Your task to perform on an android device: open app "Facebook Messenger" (install if not already installed) and go to login screen Image 0: 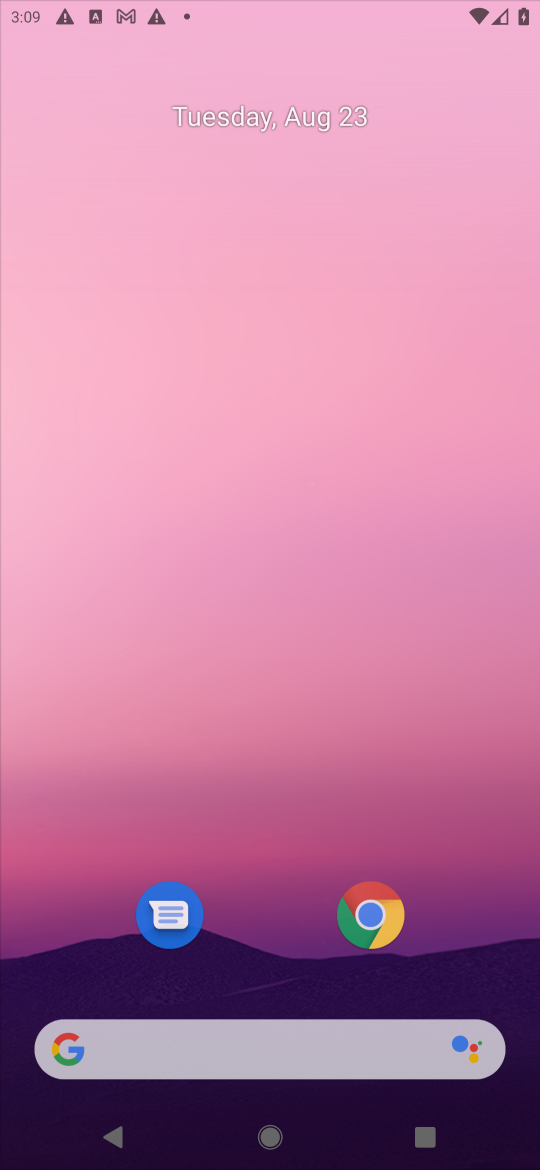
Step 0: press home button
Your task to perform on an android device: open app "Facebook Messenger" (install if not already installed) and go to login screen Image 1: 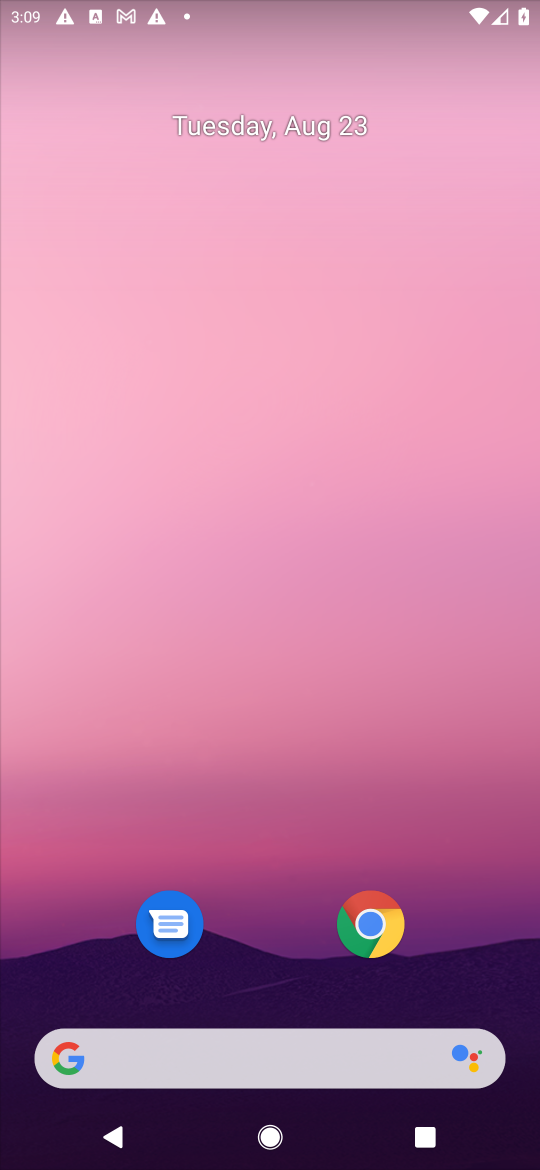
Step 1: press home button
Your task to perform on an android device: open app "Facebook Messenger" (install if not already installed) and go to login screen Image 2: 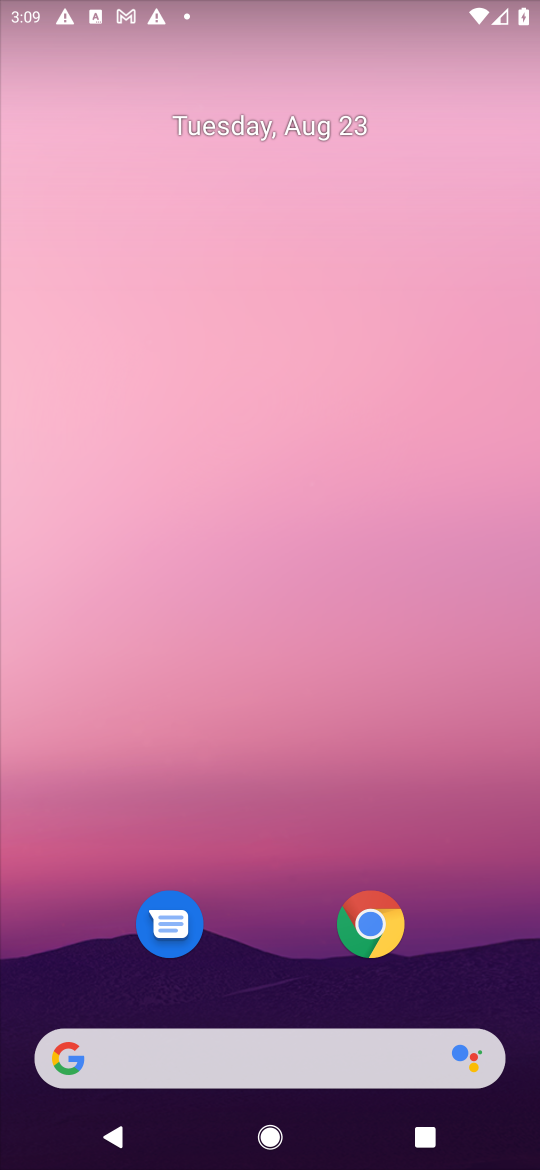
Step 2: drag from (465, 814) to (429, 145)
Your task to perform on an android device: open app "Facebook Messenger" (install if not already installed) and go to login screen Image 3: 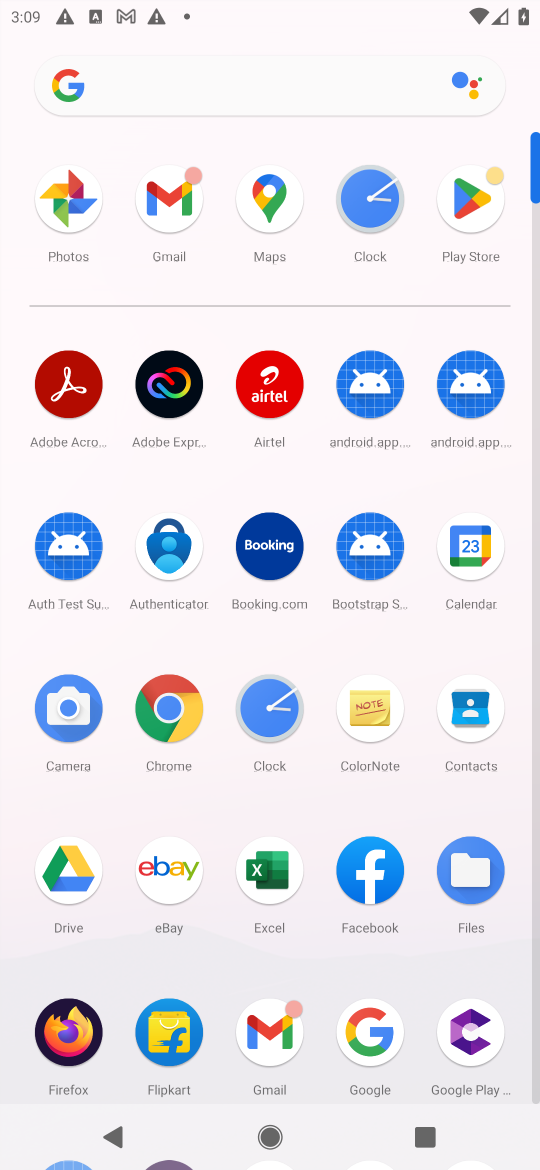
Step 3: click (475, 202)
Your task to perform on an android device: open app "Facebook Messenger" (install if not already installed) and go to login screen Image 4: 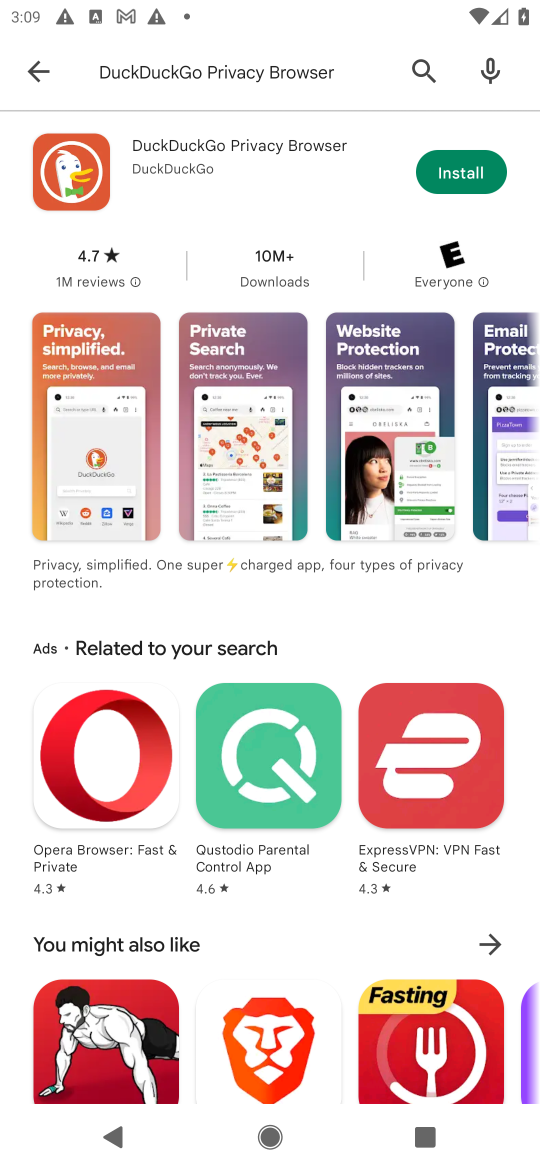
Step 4: press back button
Your task to perform on an android device: open app "Facebook Messenger" (install if not already installed) and go to login screen Image 5: 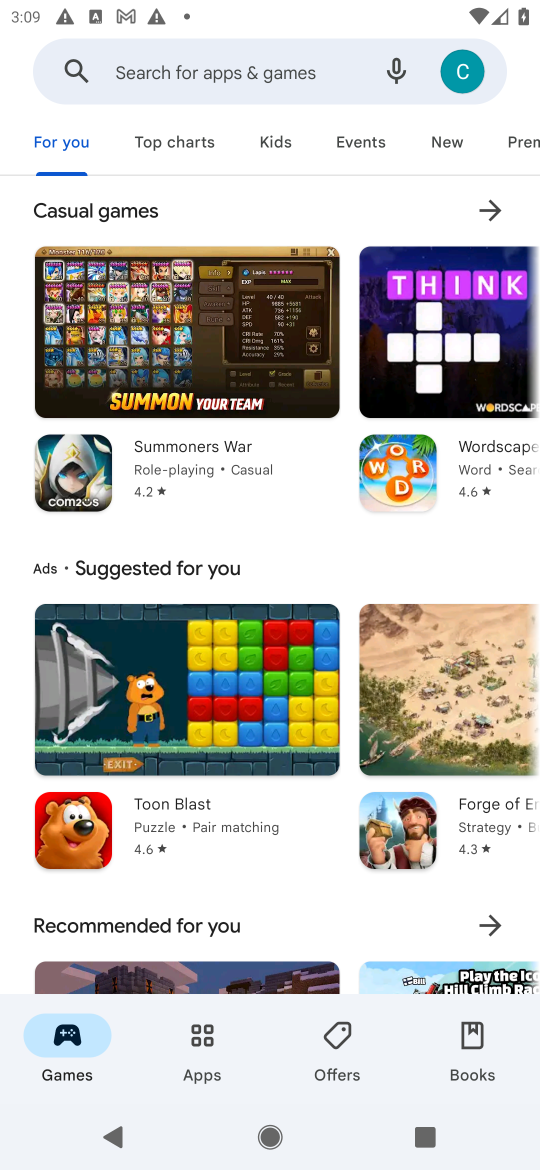
Step 5: click (193, 81)
Your task to perform on an android device: open app "Facebook Messenger" (install if not already installed) and go to login screen Image 6: 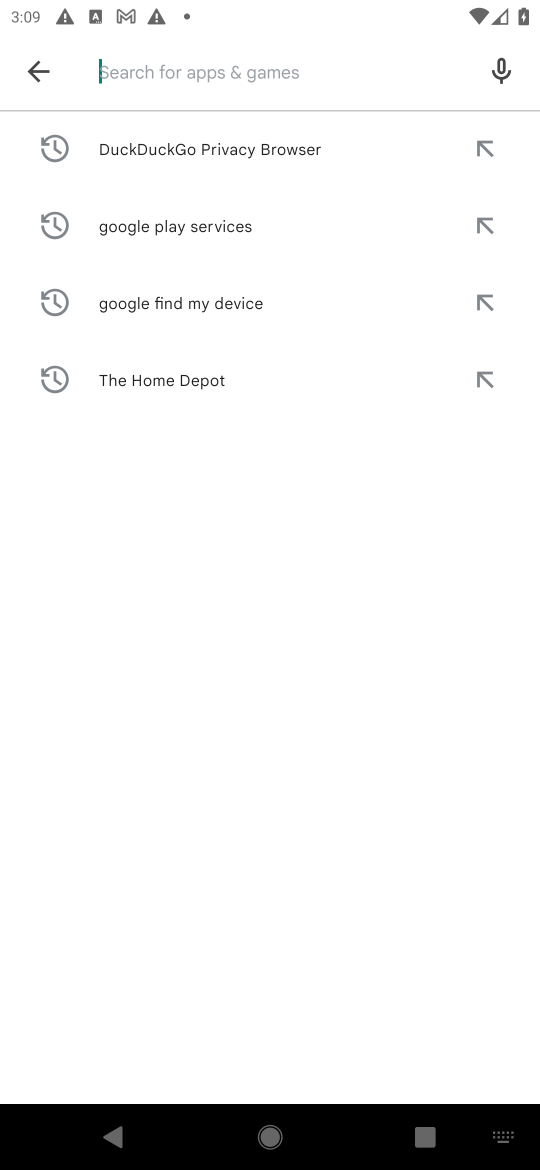
Step 6: type "Facebook Messenger"
Your task to perform on an android device: open app "Facebook Messenger" (install if not already installed) and go to login screen Image 7: 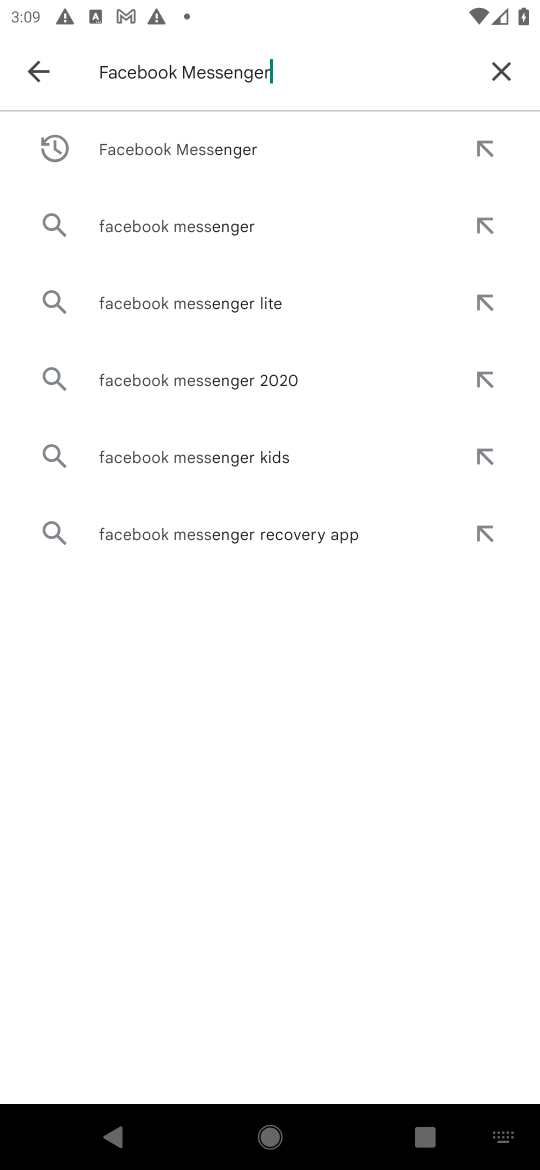
Step 7: press enter
Your task to perform on an android device: open app "Facebook Messenger" (install if not already installed) and go to login screen Image 8: 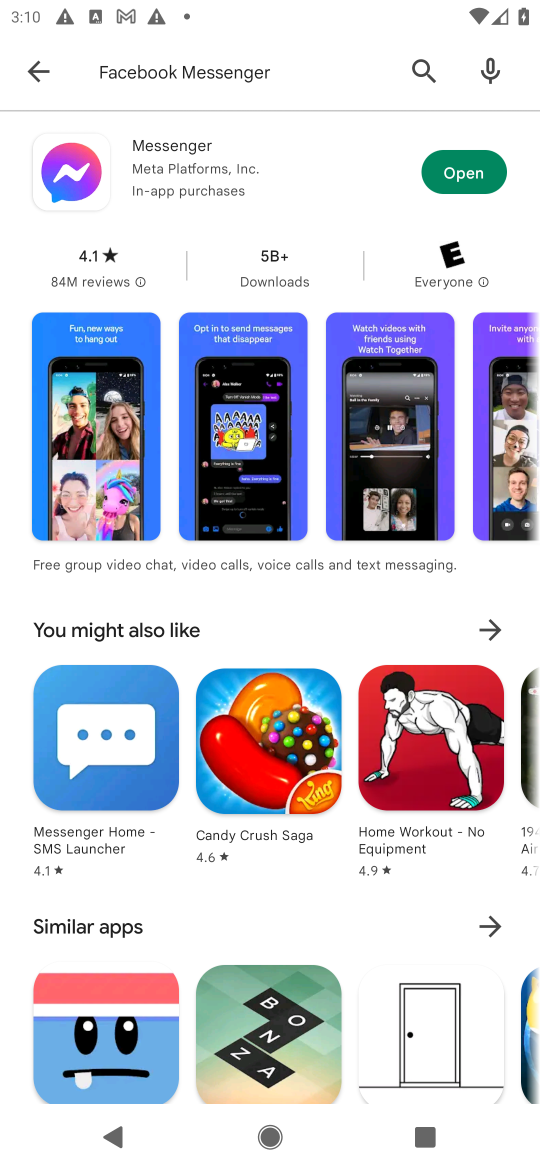
Step 8: click (470, 169)
Your task to perform on an android device: open app "Facebook Messenger" (install if not already installed) and go to login screen Image 9: 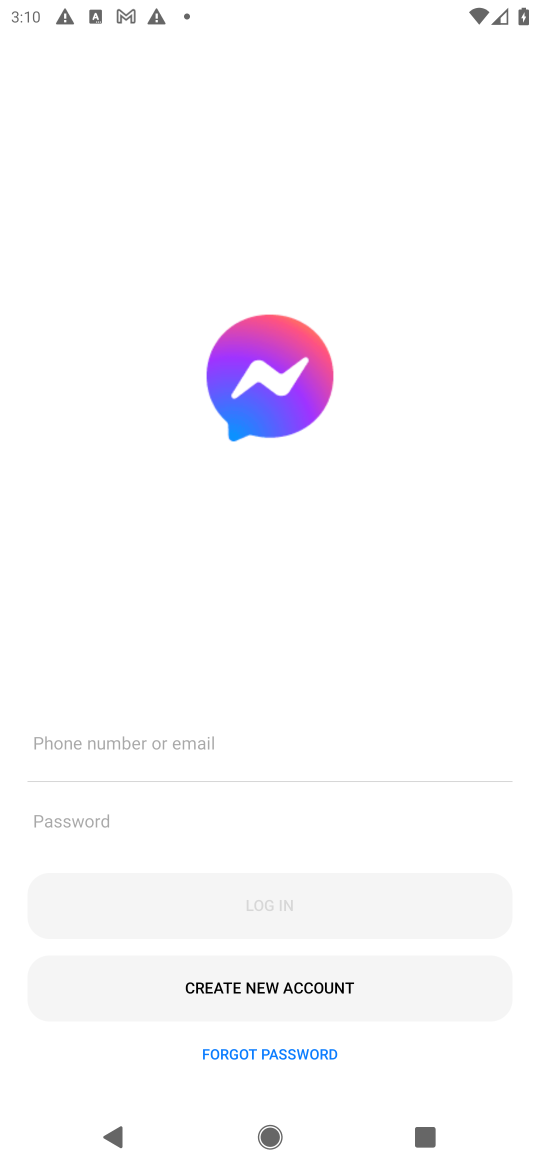
Step 9: task complete